Your task to perform on an android device: Find coffee shops on Maps Image 0: 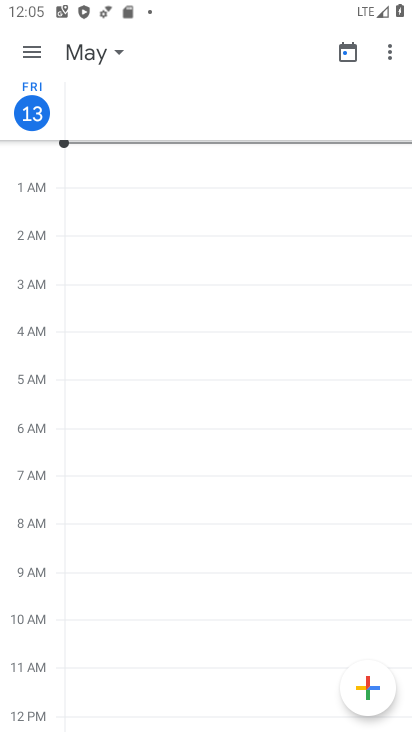
Step 0: press home button
Your task to perform on an android device: Find coffee shops on Maps Image 1: 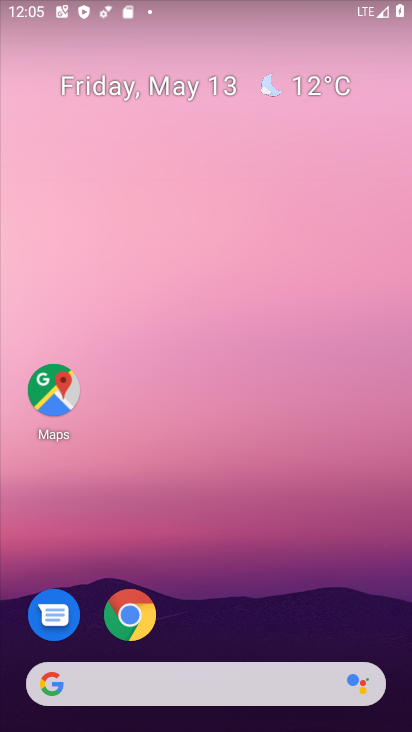
Step 1: click (70, 410)
Your task to perform on an android device: Find coffee shops on Maps Image 2: 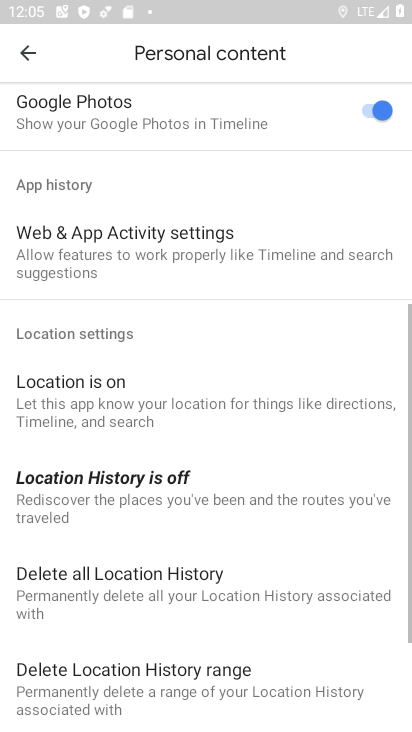
Step 2: click (31, 45)
Your task to perform on an android device: Find coffee shops on Maps Image 3: 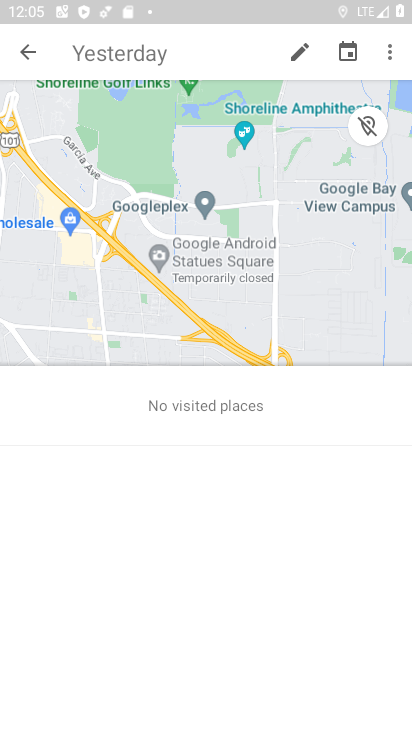
Step 3: click (35, 40)
Your task to perform on an android device: Find coffee shops on Maps Image 4: 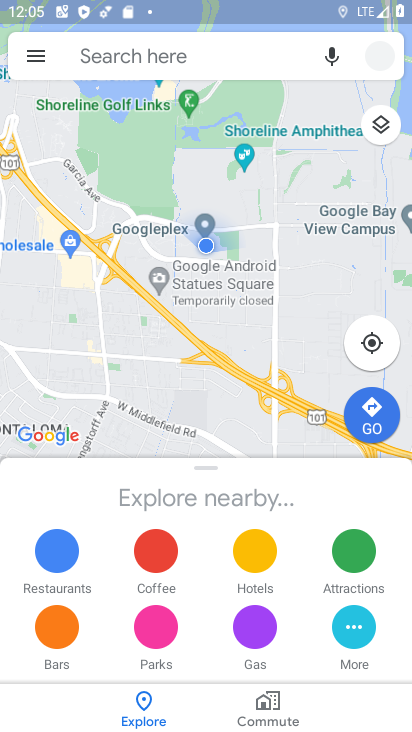
Step 4: click (131, 46)
Your task to perform on an android device: Find coffee shops on Maps Image 5: 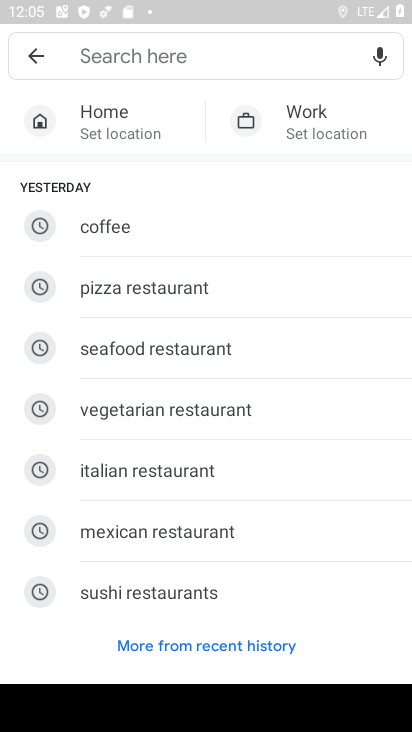
Step 5: type "coffee shops"
Your task to perform on an android device: Find coffee shops on Maps Image 6: 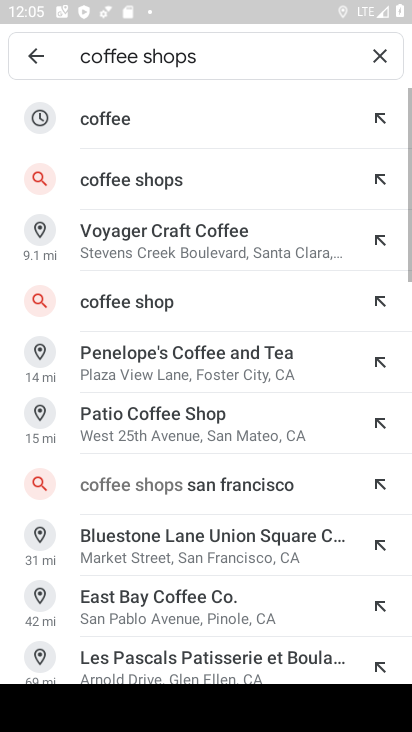
Step 6: click (168, 185)
Your task to perform on an android device: Find coffee shops on Maps Image 7: 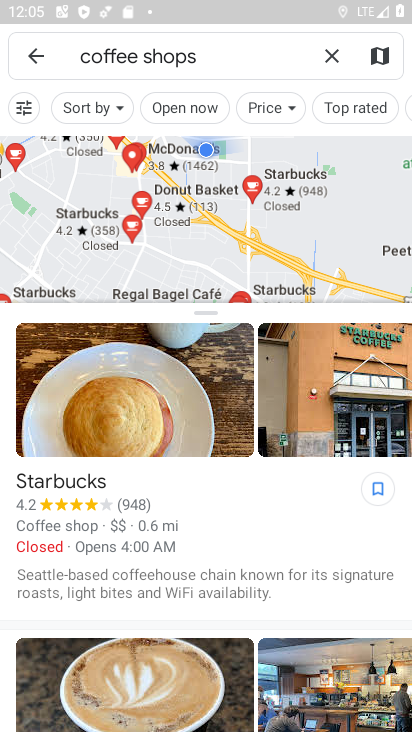
Step 7: task complete